Your task to perform on an android device: read, delete, or share a saved page in the chrome app Image 0: 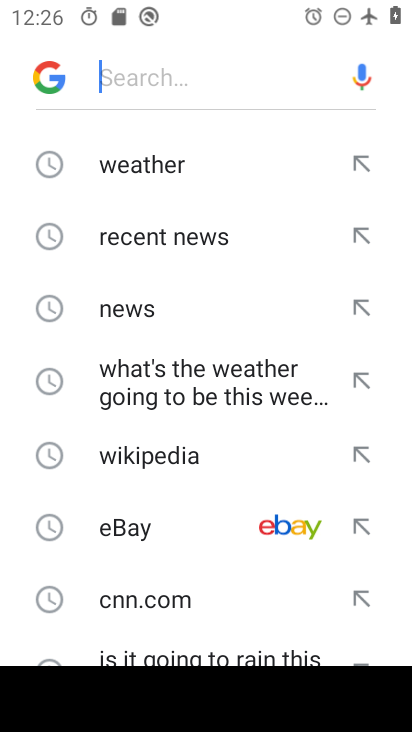
Step 0: press home button
Your task to perform on an android device: read, delete, or share a saved page in the chrome app Image 1: 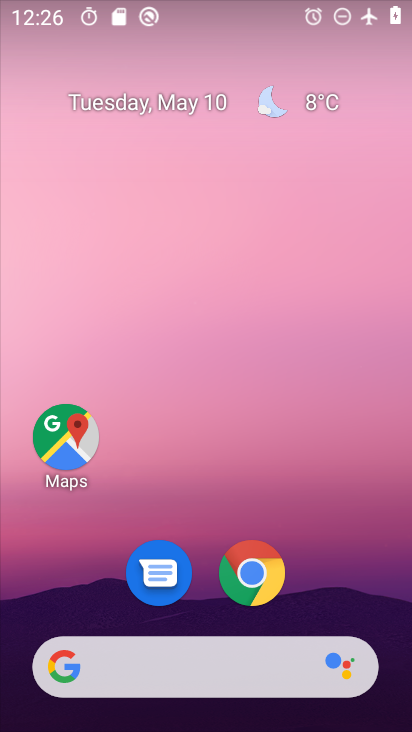
Step 1: click (257, 571)
Your task to perform on an android device: read, delete, or share a saved page in the chrome app Image 2: 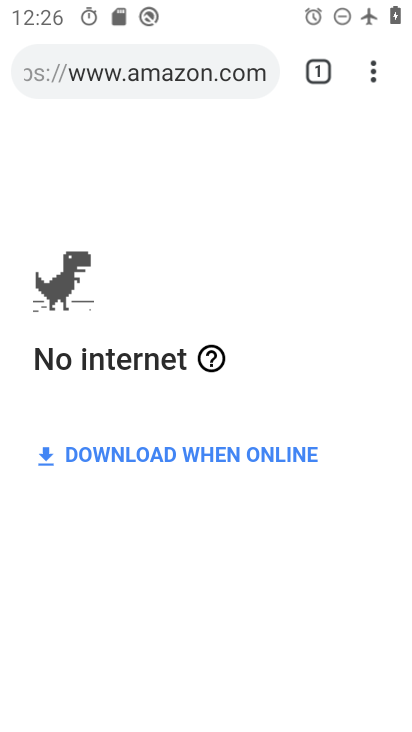
Step 2: task complete